Your task to perform on an android device: see sites visited before in the chrome app Image 0: 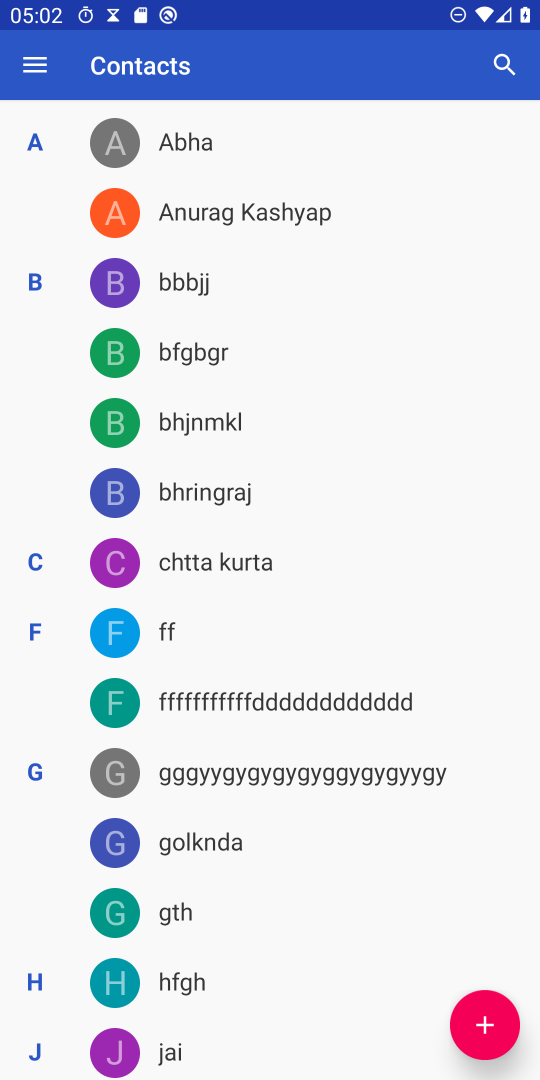
Step 0: press home button
Your task to perform on an android device: see sites visited before in the chrome app Image 1: 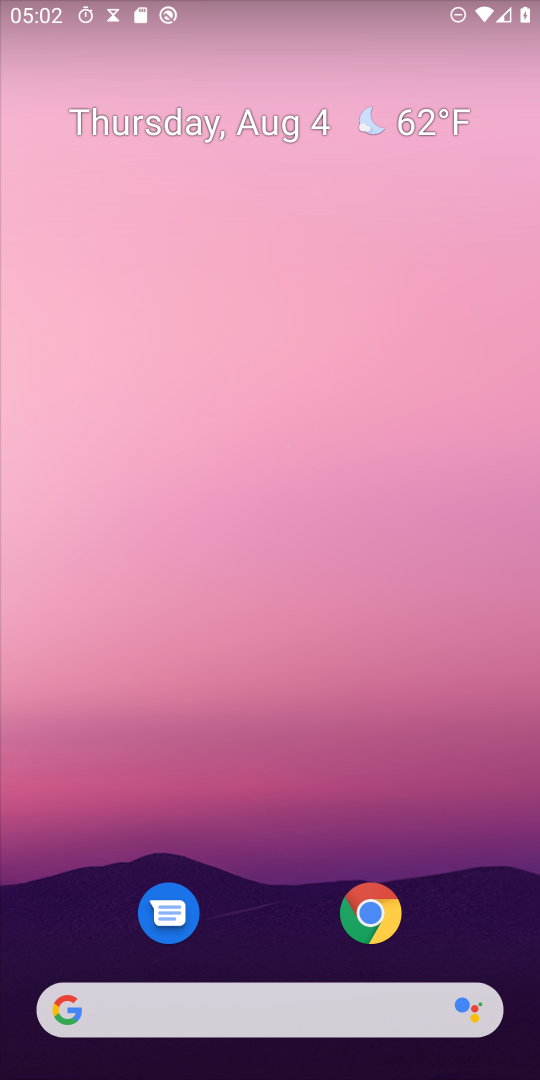
Step 1: drag from (453, 931) to (449, 13)
Your task to perform on an android device: see sites visited before in the chrome app Image 2: 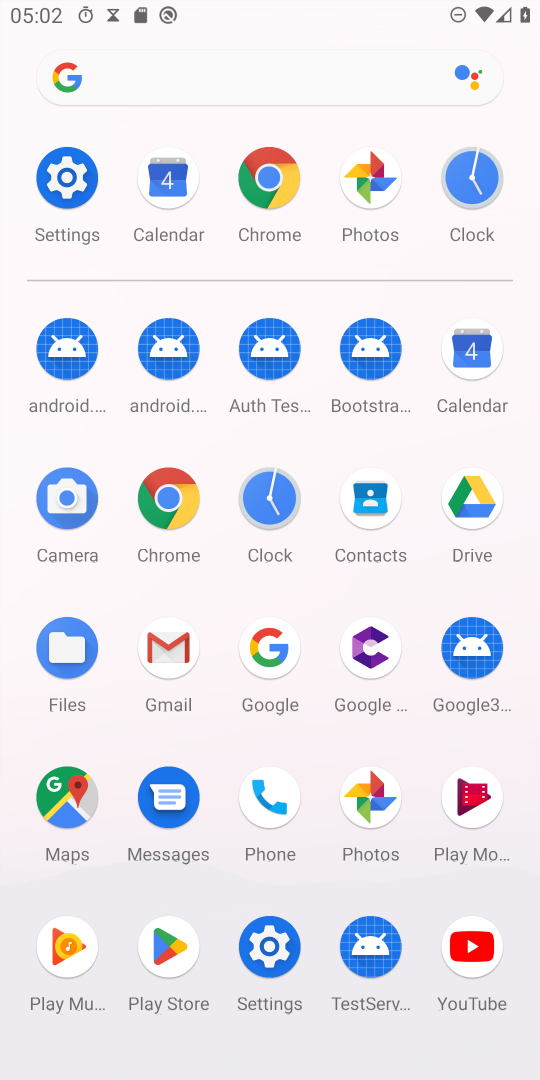
Step 2: click (140, 493)
Your task to perform on an android device: see sites visited before in the chrome app Image 3: 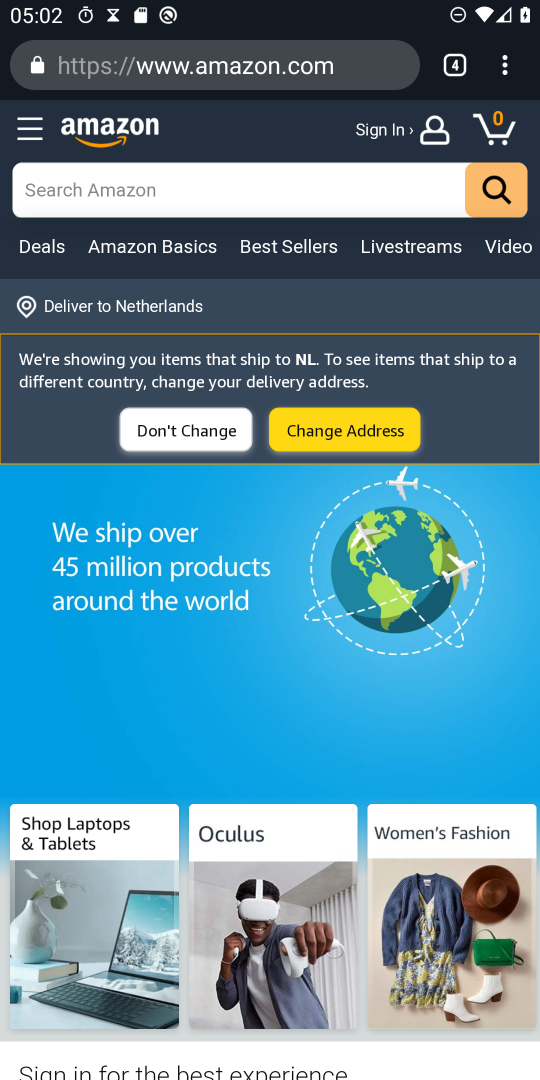
Step 3: task complete